Your task to perform on an android device: Search for Italian restaurants on Maps Image 0: 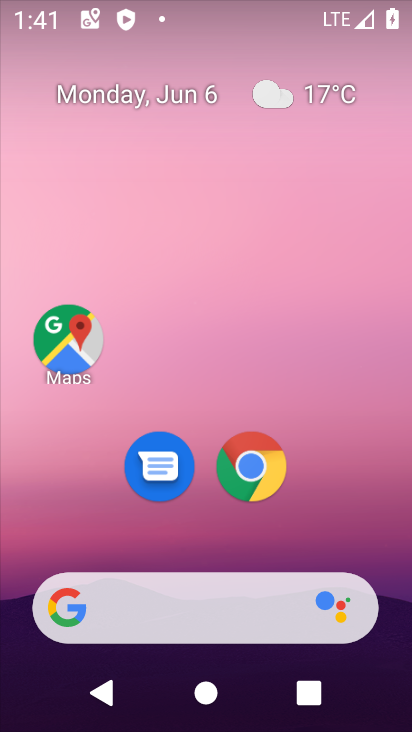
Step 0: press home button
Your task to perform on an android device: Search for Italian restaurants on Maps Image 1: 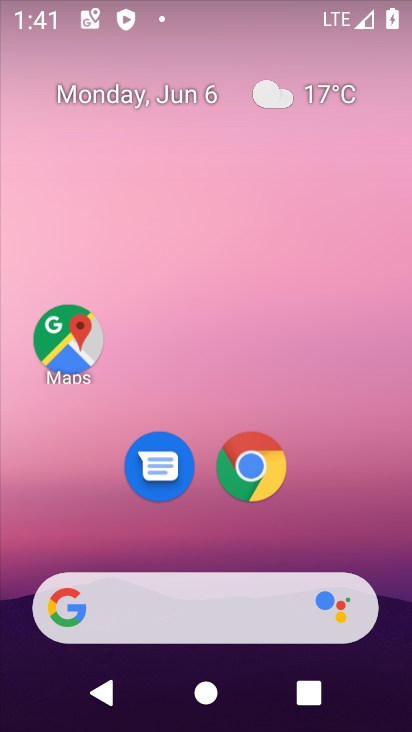
Step 1: click (68, 343)
Your task to perform on an android device: Search for Italian restaurants on Maps Image 2: 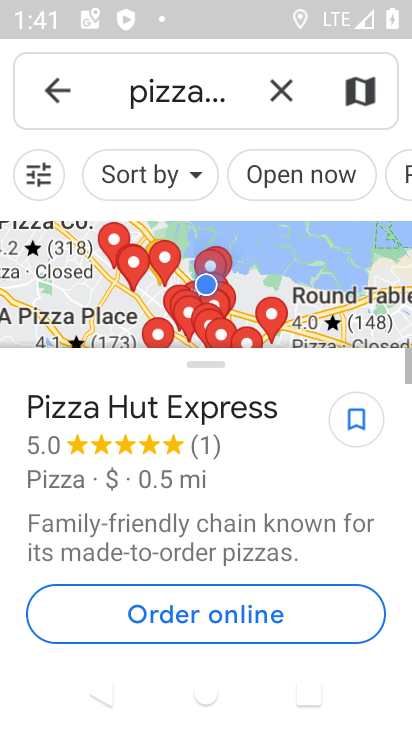
Step 2: click (280, 91)
Your task to perform on an android device: Search for Italian restaurants on Maps Image 3: 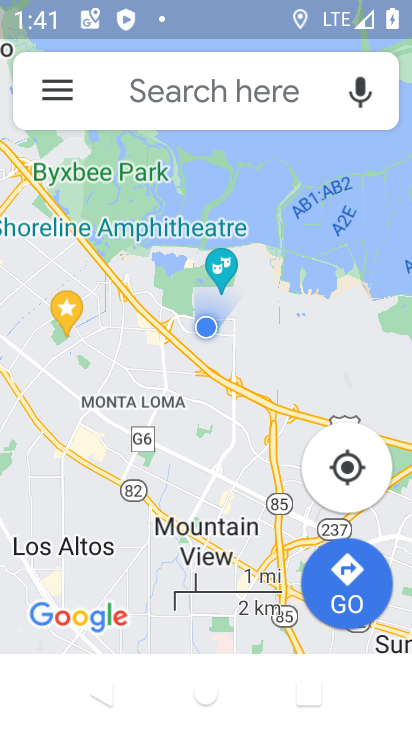
Step 3: click (185, 83)
Your task to perform on an android device: Search for Italian restaurants on Maps Image 4: 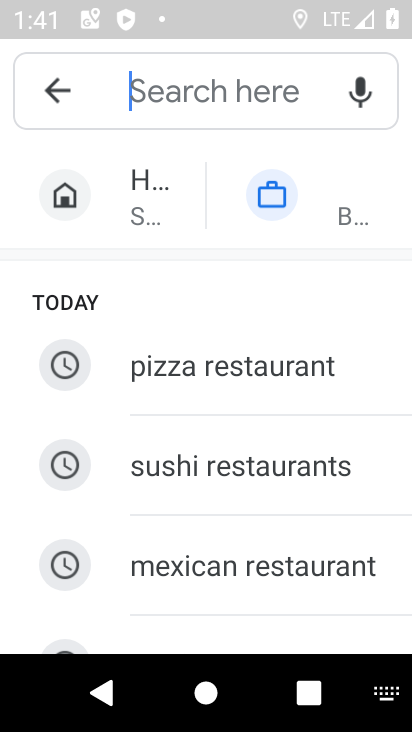
Step 4: type "Italian restaurants"
Your task to perform on an android device: Search for Italian restaurants on Maps Image 5: 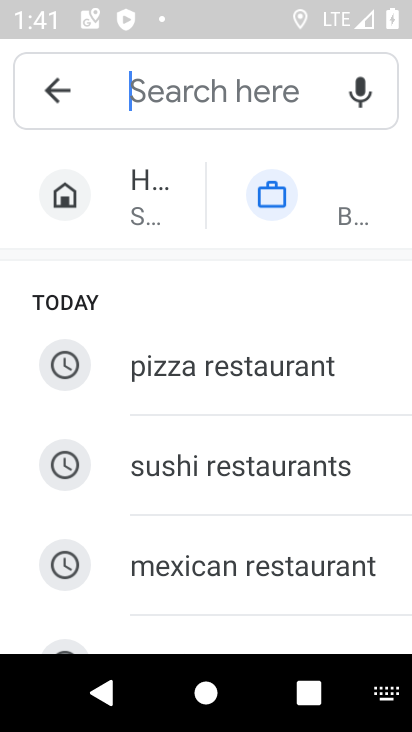
Step 5: click (212, 85)
Your task to perform on an android device: Search for Italian restaurants on Maps Image 6: 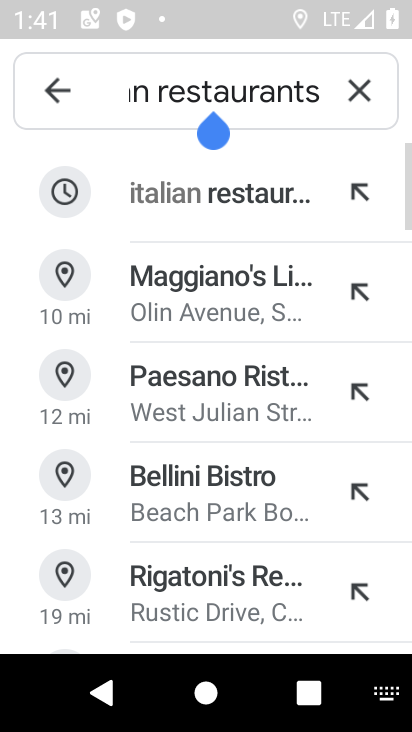
Step 6: click (229, 201)
Your task to perform on an android device: Search for Italian restaurants on Maps Image 7: 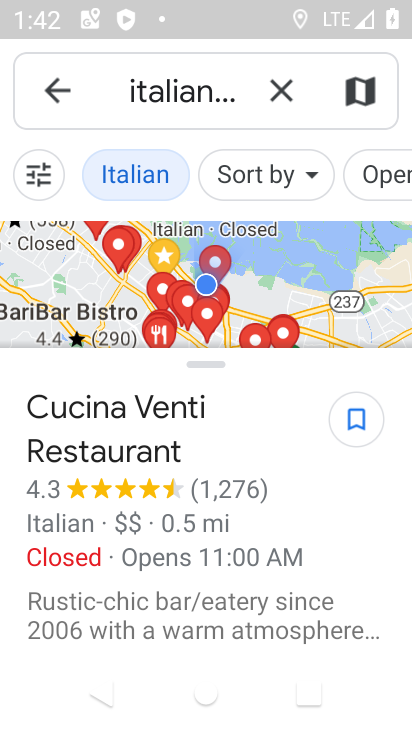
Step 7: task complete